Your task to perform on an android device: Search for flights from Buenos aires to Seoul Image 0: 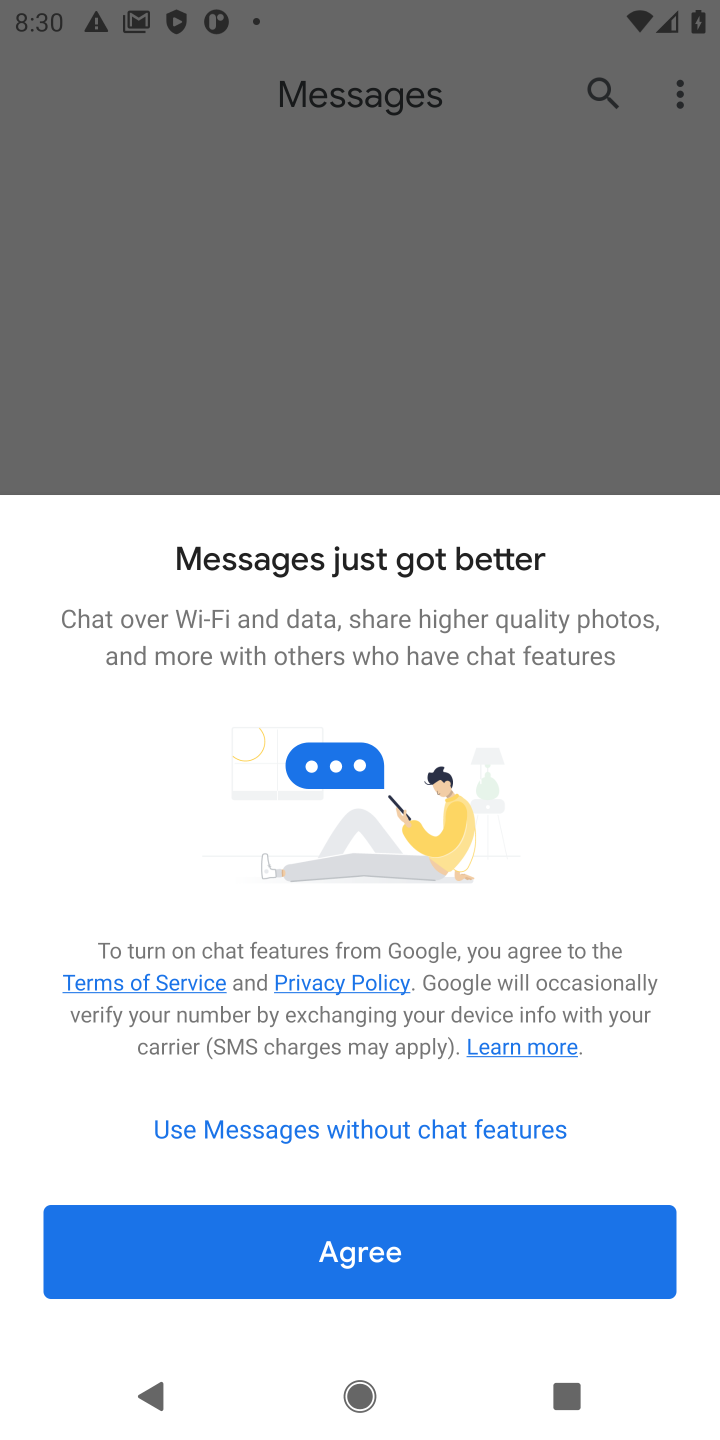
Step 0: press home button
Your task to perform on an android device: Search for flights from Buenos aires to Seoul Image 1: 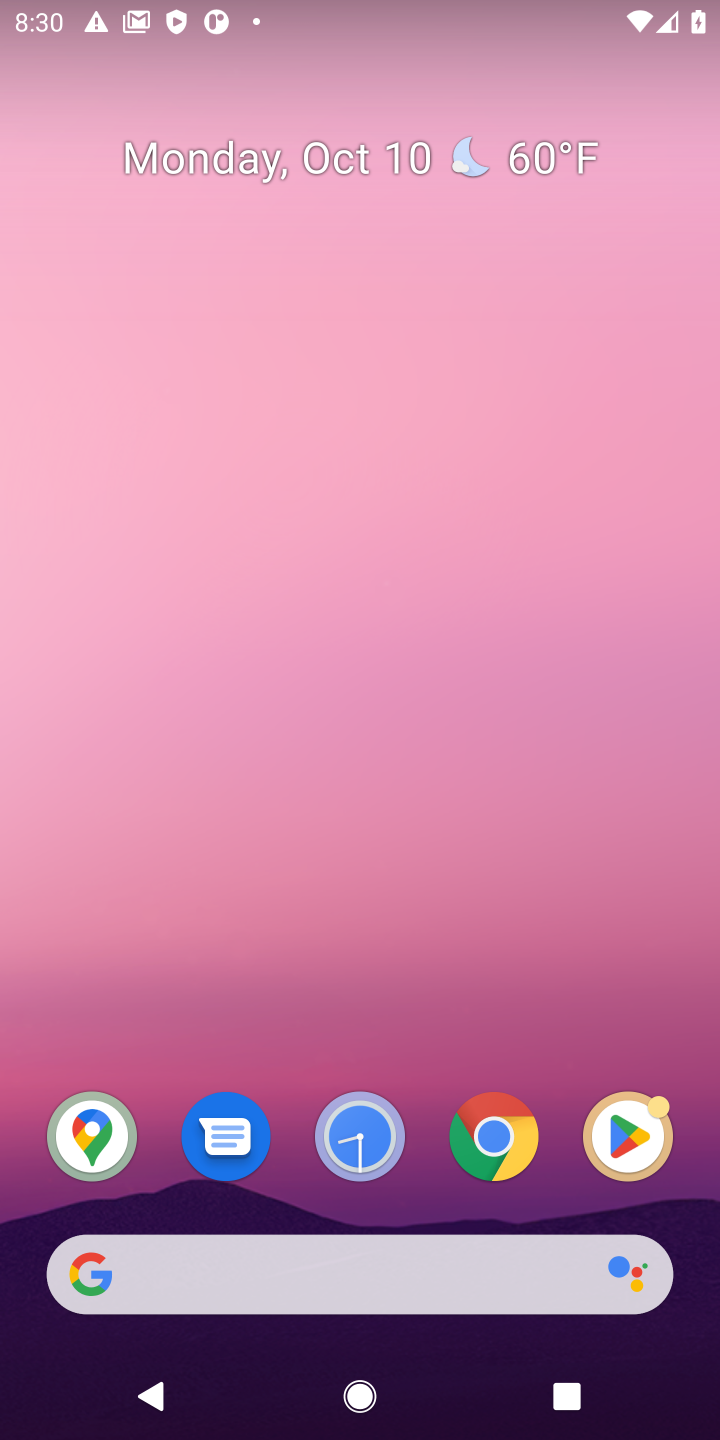
Step 1: click (156, 1282)
Your task to perform on an android device: Search for flights from Buenos aires to Seoul Image 2: 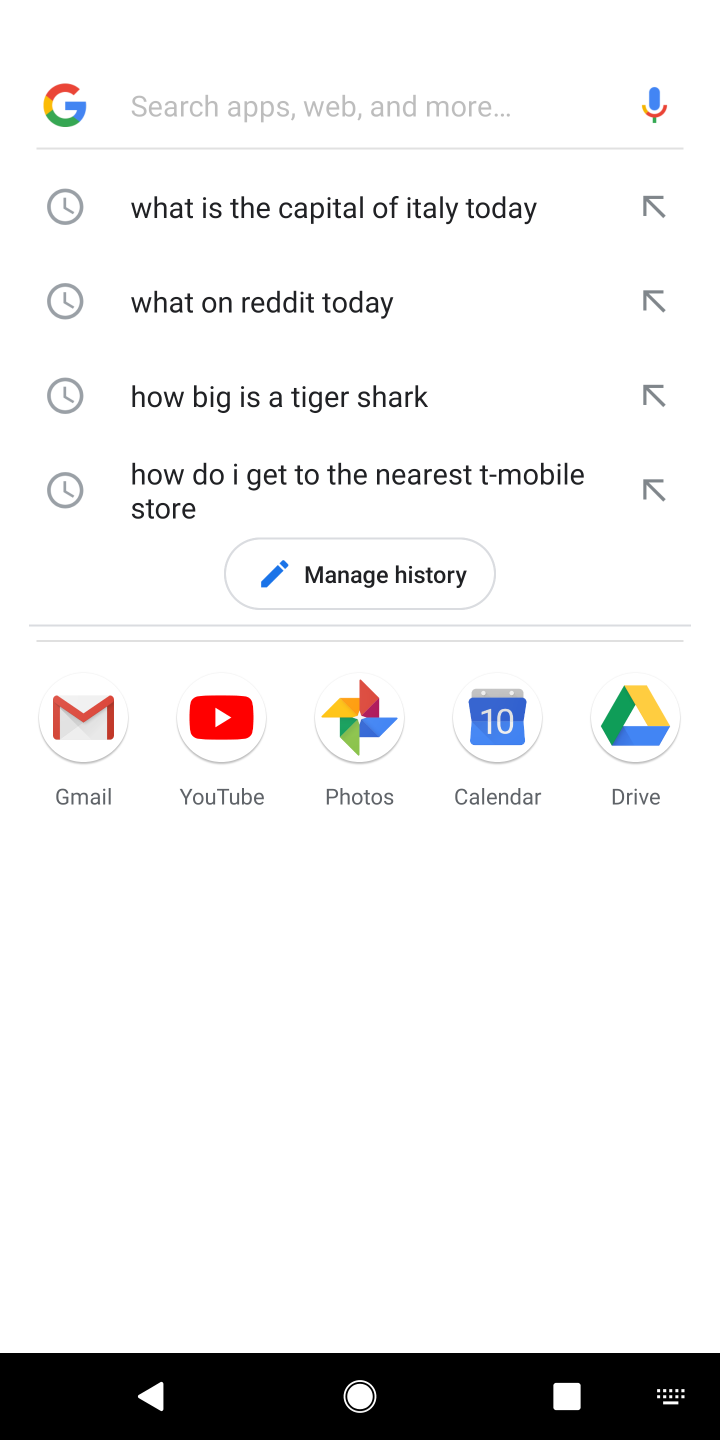
Step 2: type "flights from Buenos aires to Seoul"
Your task to perform on an android device: Search for flights from Buenos aires to Seoul Image 3: 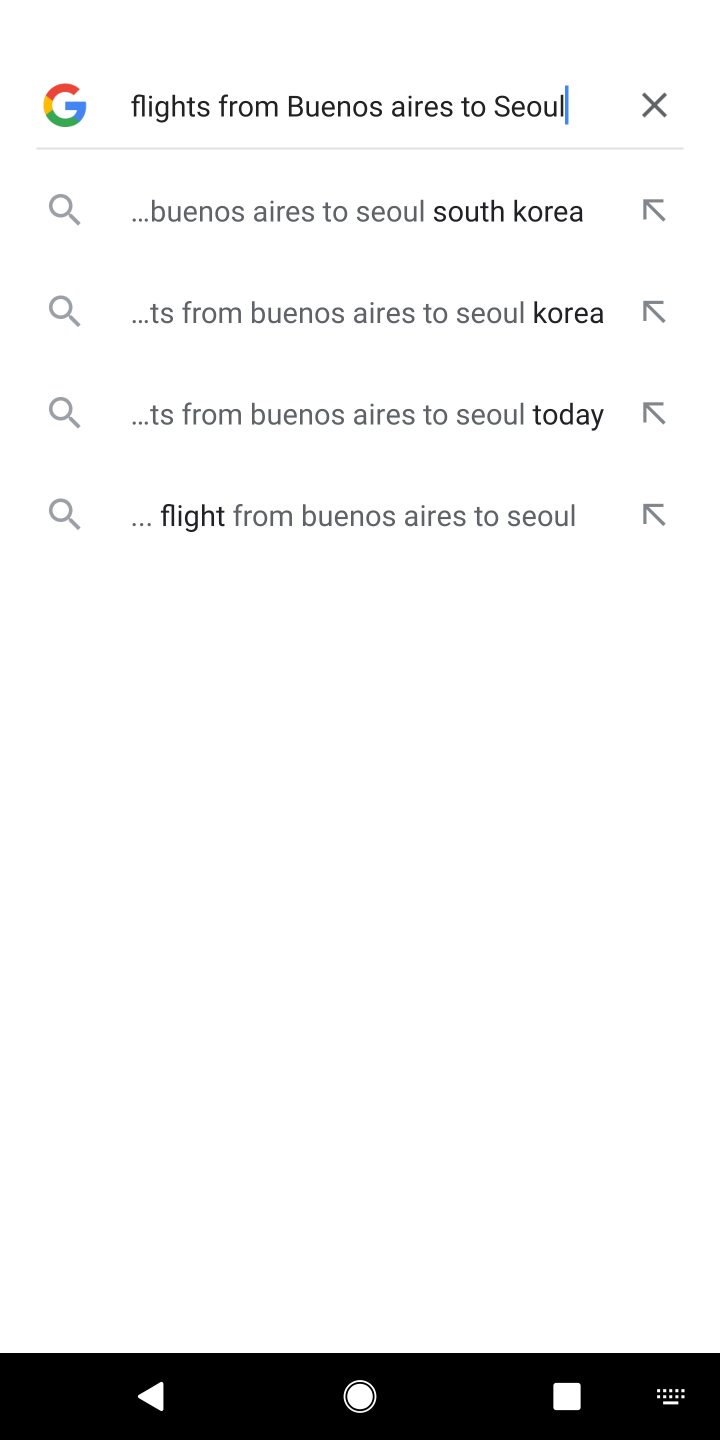
Step 3: click (305, 516)
Your task to perform on an android device: Search for flights from Buenos aires to Seoul Image 4: 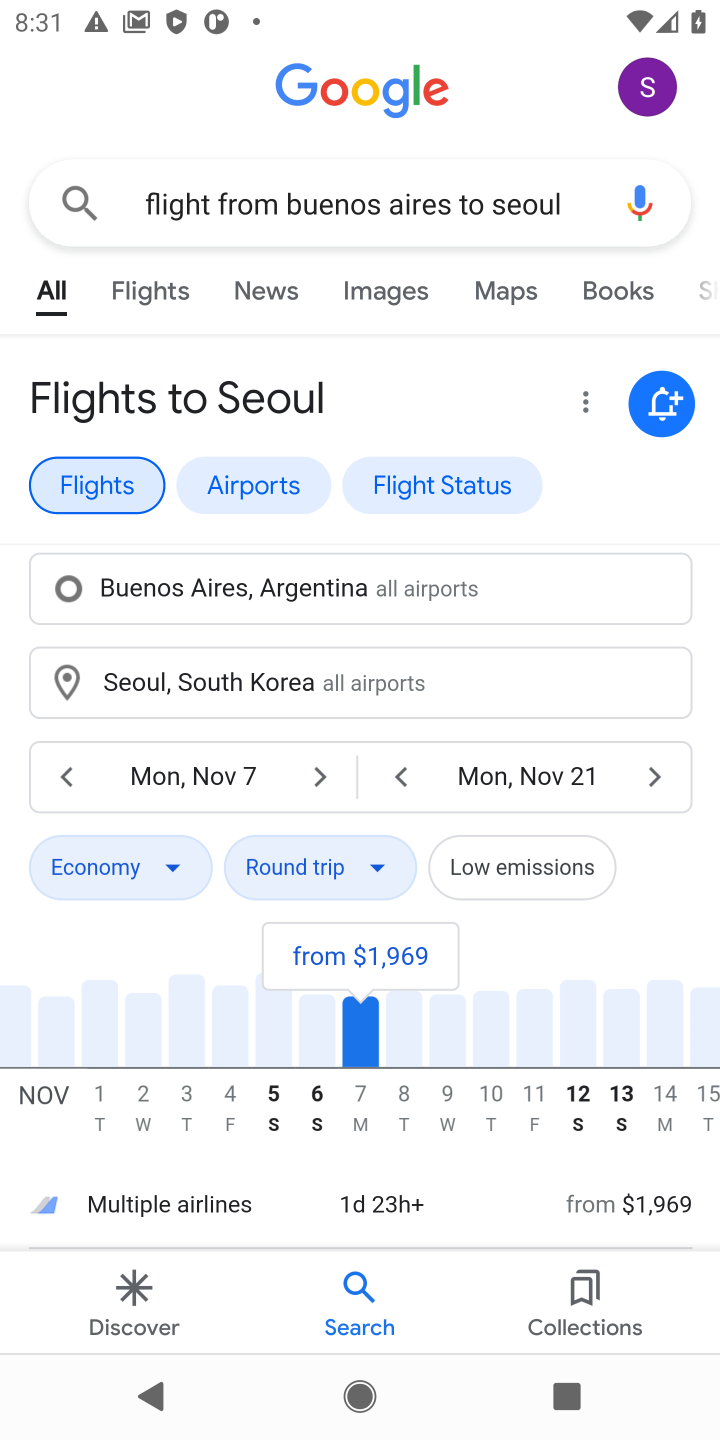
Step 4: task complete